Your task to perform on an android device: check storage Image 0: 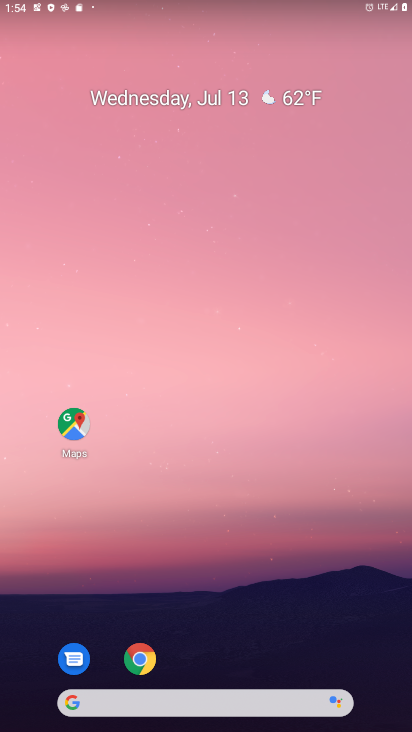
Step 0: drag from (222, 712) to (222, 206)
Your task to perform on an android device: check storage Image 1: 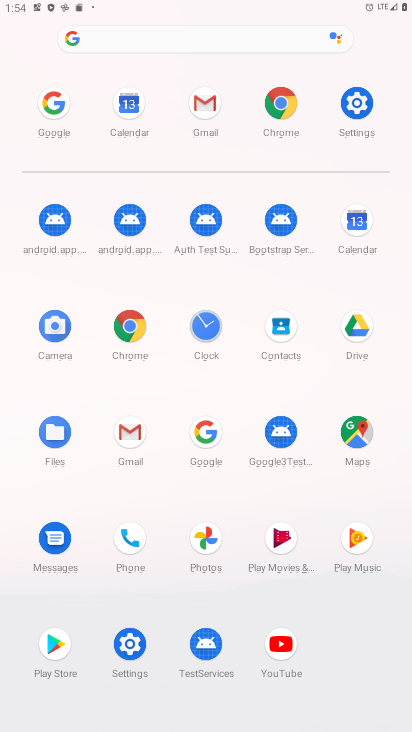
Step 1: click (355, 107)
Your task to perform on an android device: check storage Image 2: 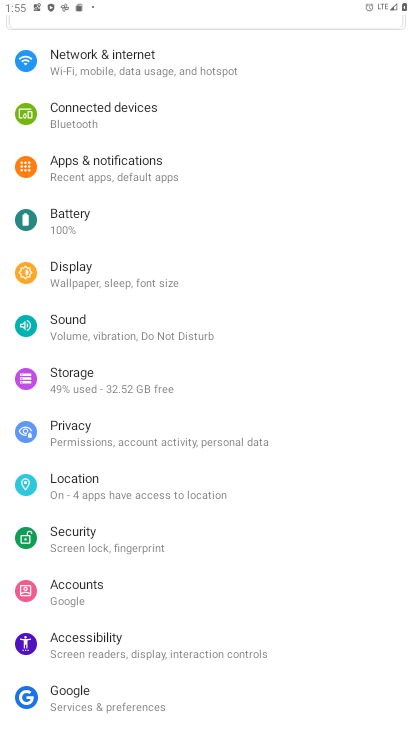
Step 2: click (75, 382)
Your task to perform on an android device: check storage Image 3: 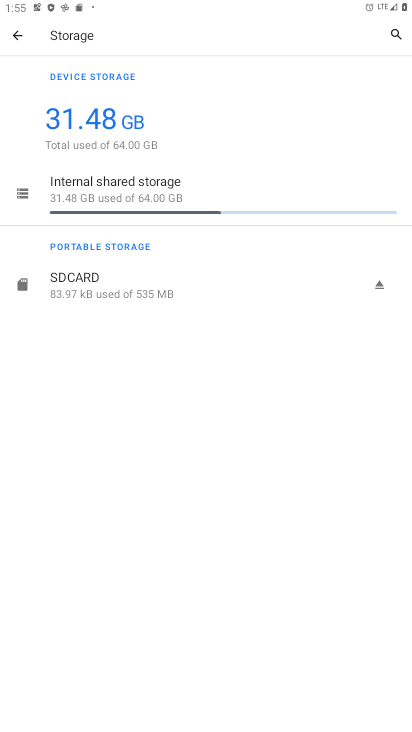
Step 3: task complete